Your task to perform on an android device: see creations saved in the google photos Image 0: 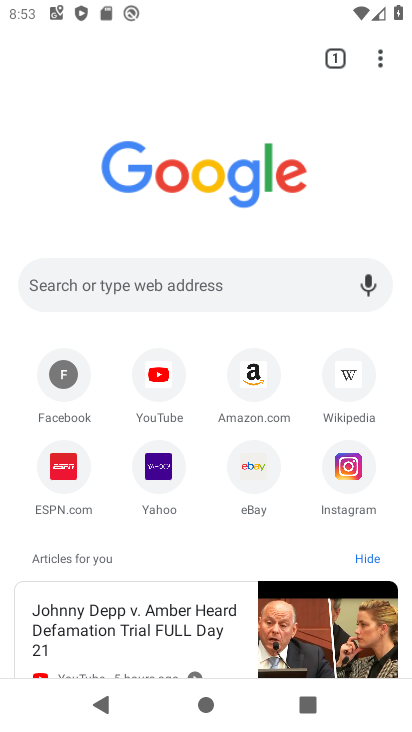
Step 0: press home button
Your task to perform on an android device: see creations saved in the google photos Image 1: 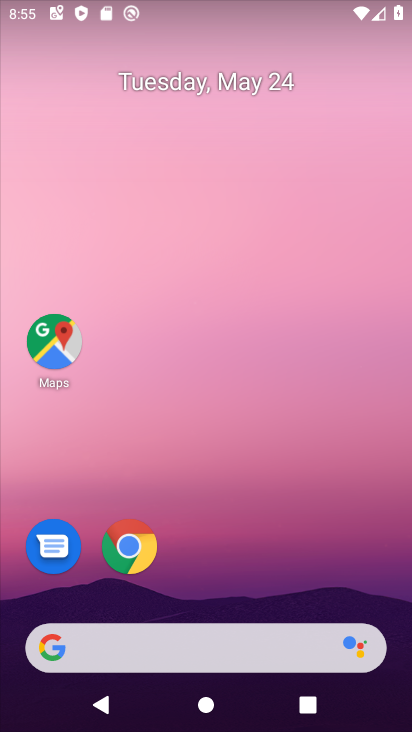
Step 1: drag from (230, 569) to (222, 158)
Your task to perform on an android device: see creations saved in the google photos Image 2: 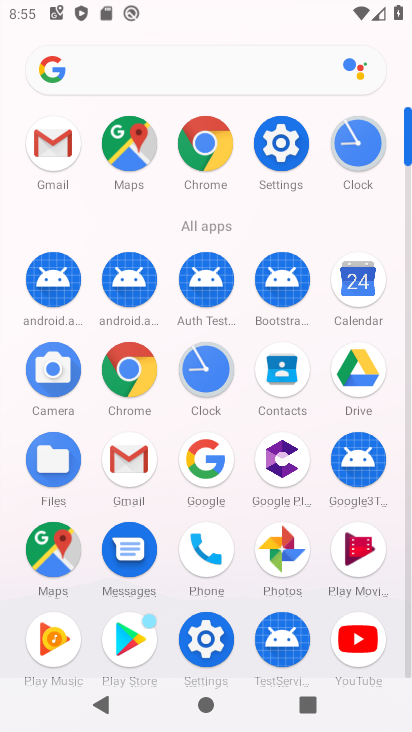
Step 2: click (267, 546)
Your task to perform on an android device: see creations saved in the google photos Image 3: 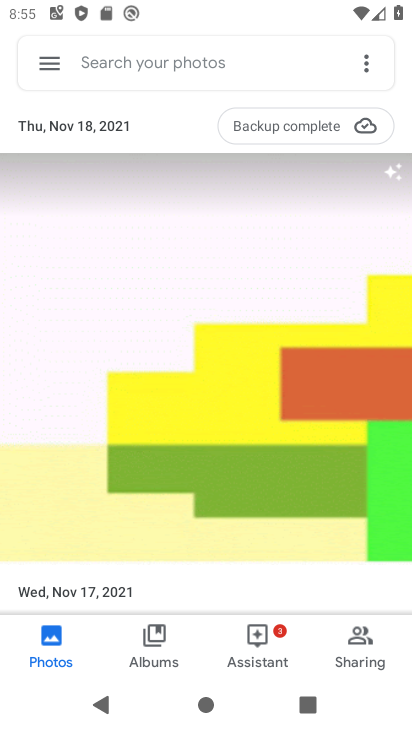
Step 3: click (161, 633)
Your task to perform on an android device: see creations saved in the google photos Image 4: 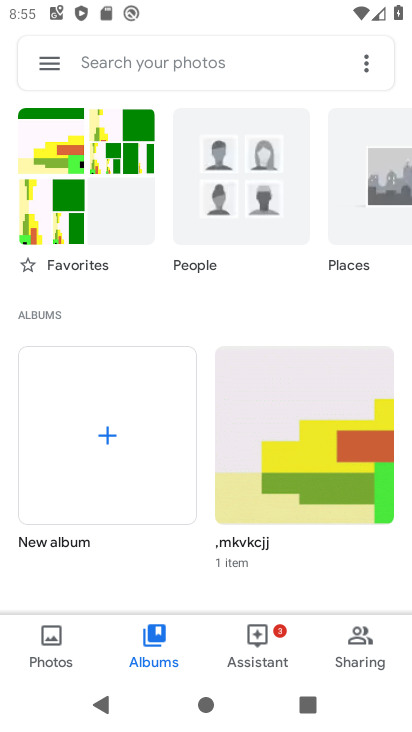
Step 4: task complete